Your task to perform on an android device: Open settings Image 0: 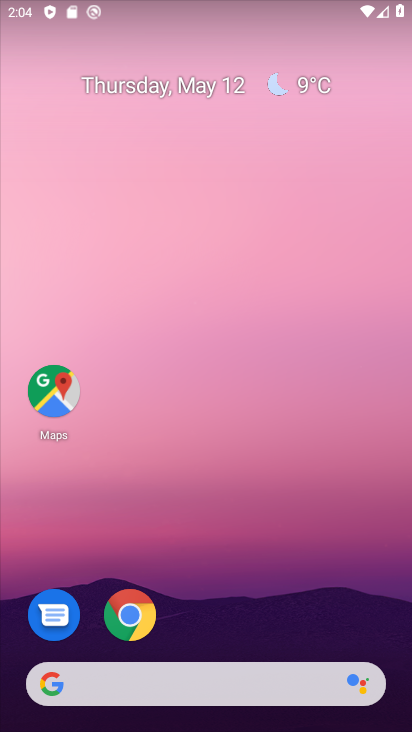
Step 0: drag from (182, 670) to (156, 233)
Your task to perform on an android device: Open settings Image 1: 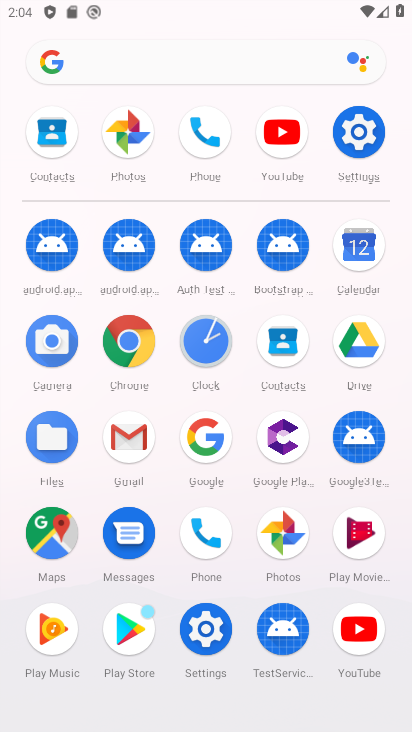
Step 1: click (358, 129)
Your task to perform on an android device: Open settings Image 2: 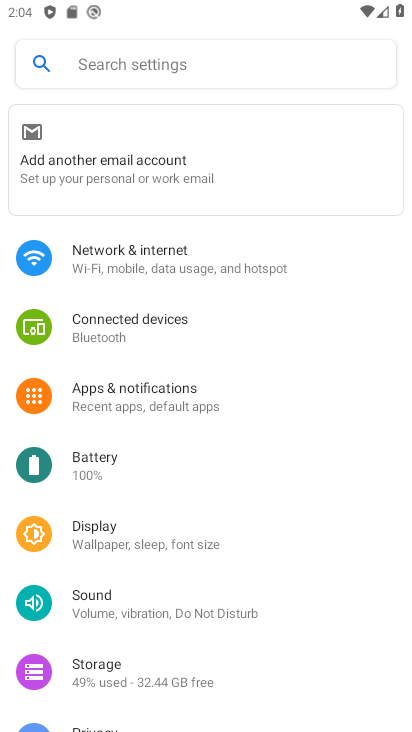
Step 2: task complete